Your task to perform on an android device: Search for the best rated headphones on Amazon. Image 0: 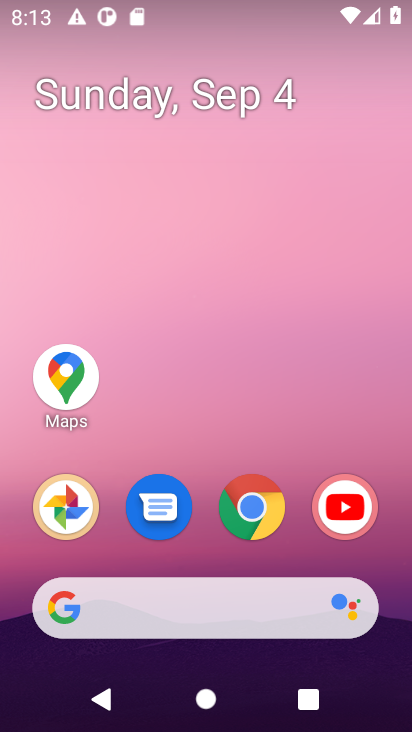
Step 0: click (257, 506)
Your task to perform on an android device: Search for the best rated headphones on Amazon. Image 1: 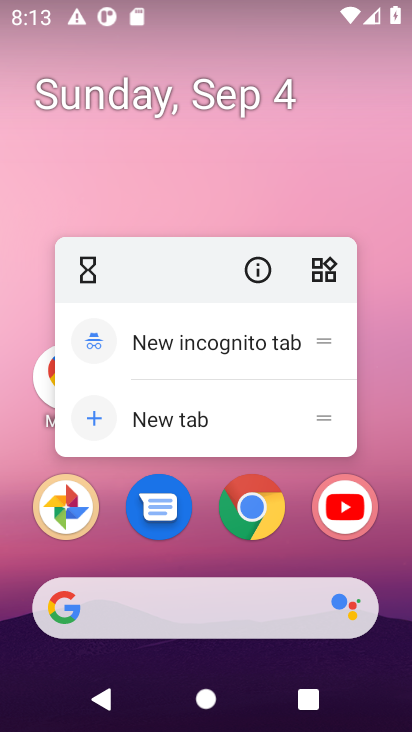
Step 1: click (255, 509)
Your task to perform on an android device: Search for the best rated headphones on Amazon. Image 2: 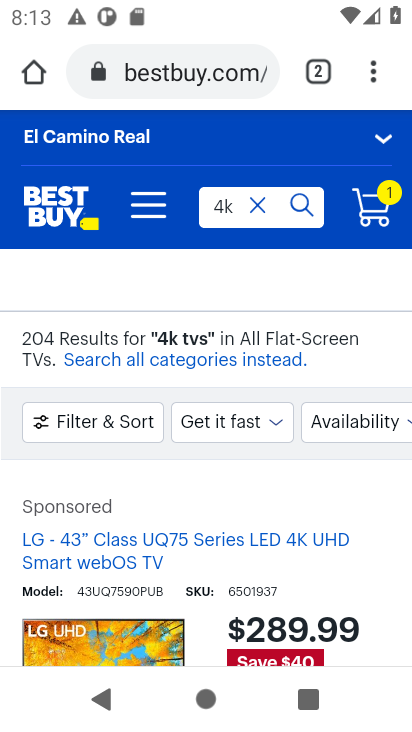
Step 2: click (255, 202)
Your task to perform on an android device: Search for the best rated headphones on Amazon. Image 3: 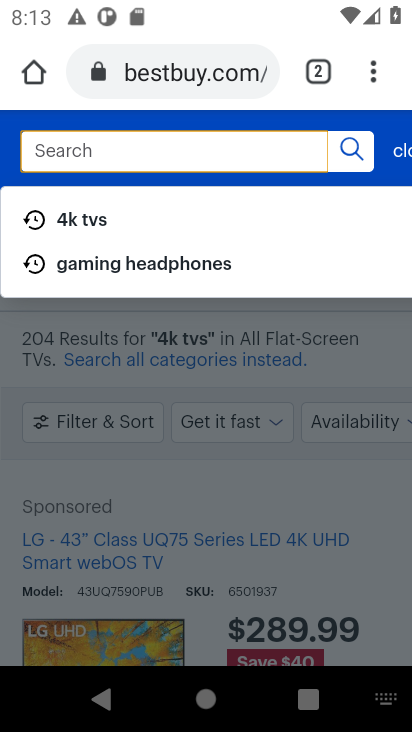
Step 3: click (165, 52)
Your task to perform on an android device: Search for the best rated headphones on Amazon. Image 4: 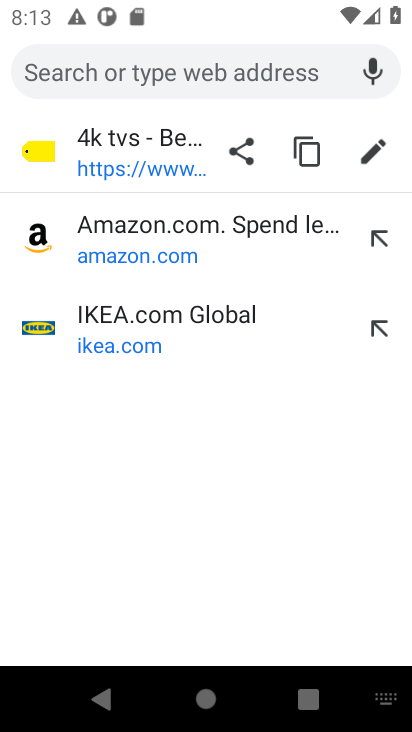
Step 4: click (113, 226)
Your task to perform on an android device: Search for the best rated headphones on Amazon. Image 5: 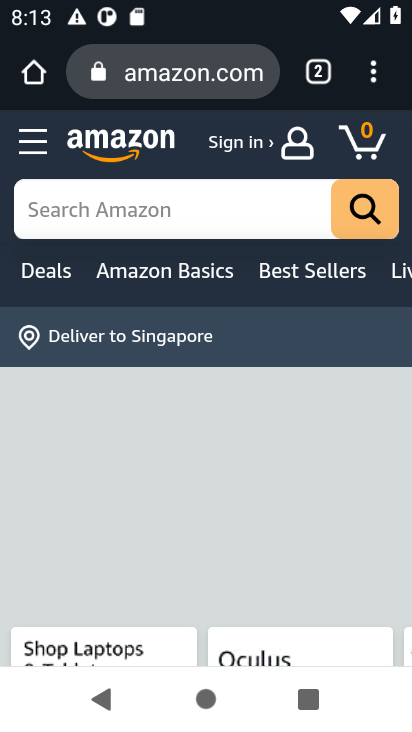
Step 5: click (127, 206)
Your task to perform on an android device: Search for the best rated headphones on Amazon. Image 6: 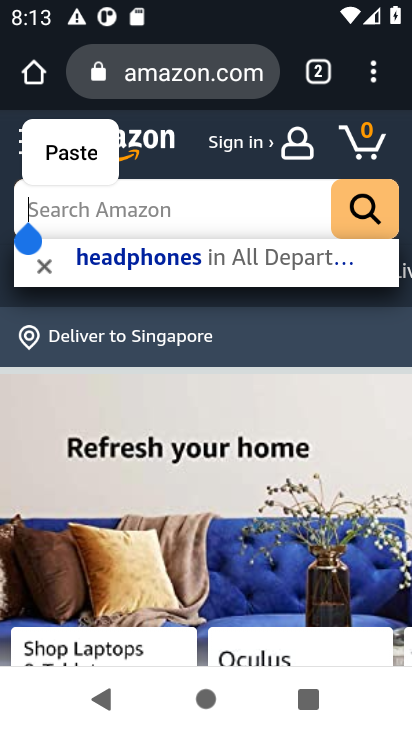
Step 6: type "best rated headphones"
Your task to perform on an android device: Search for the best rated headphones on Amazon. Image 7: 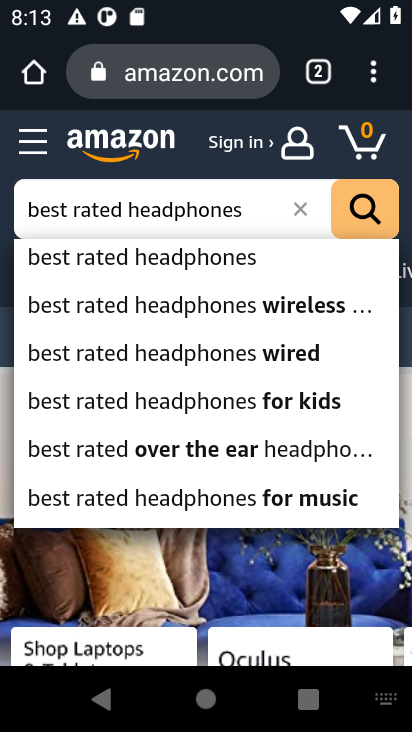
Step 7: click (149, 257)
Your task to perform on an android device: Search for the best rated headphones on Amazon. Image 8: 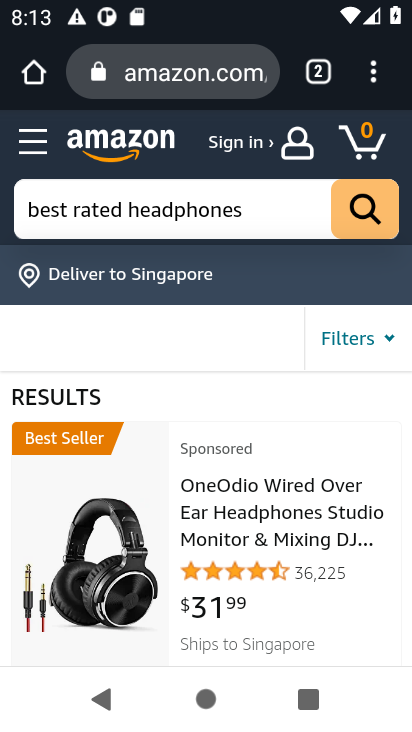
Step 8: drag from (179, 465) to (182, 183)
Your task to perform on an android device: Search for the best rated headphones on Amazon. Image 9: 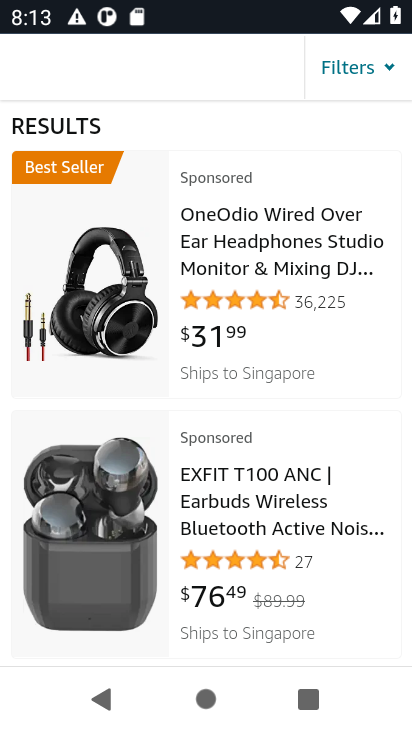
Step 9: drag from (174, 478) to (189, 149)
Your task to perform on an android device: Search for the best rated headphones on Amazon. Image 10: 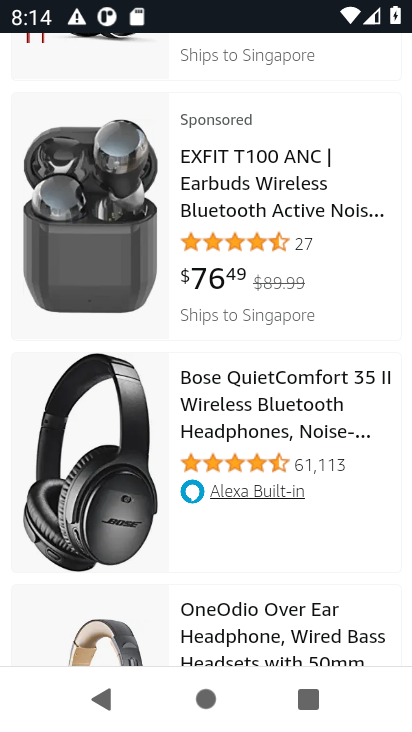
Step 10: click (178, 288)
Your task to perform on an android device: Search for the best rated headphones on Amazon. Image 11: 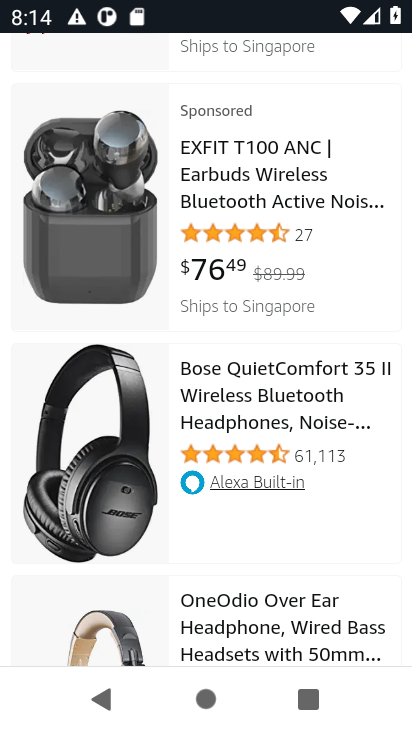
Step 11: drag from (176, 519) to (186, 304)
Your task to perform on an android device: Search for the best rated headphones on Amazon. Image 12: 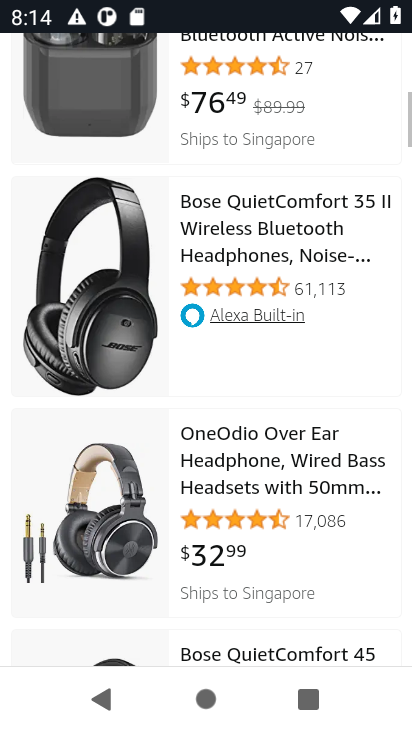
Step 12: click (186, 304)
Your task to perform on an android device: Search for the best rated headphones on Amazon. Image 13: 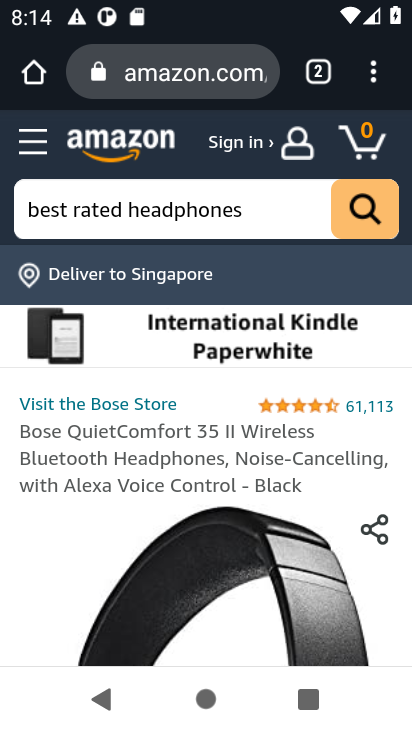
Step 13: task complete